Your task to perform on an android device: Open Yahoo.com Image 0: 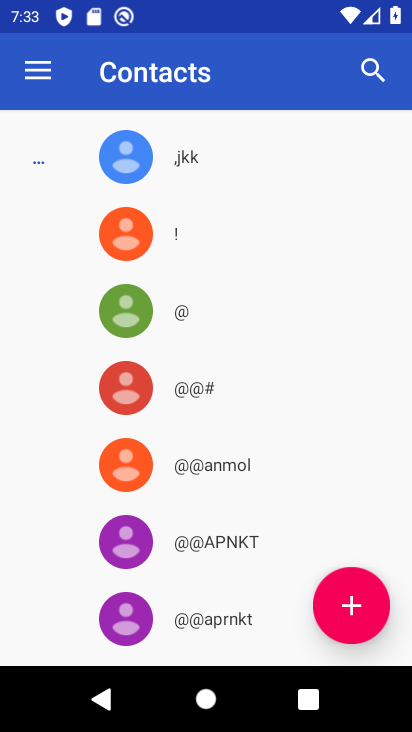
Step 0: press home button
Your task to perform on an android device: Open Yahoo.com Image 1: 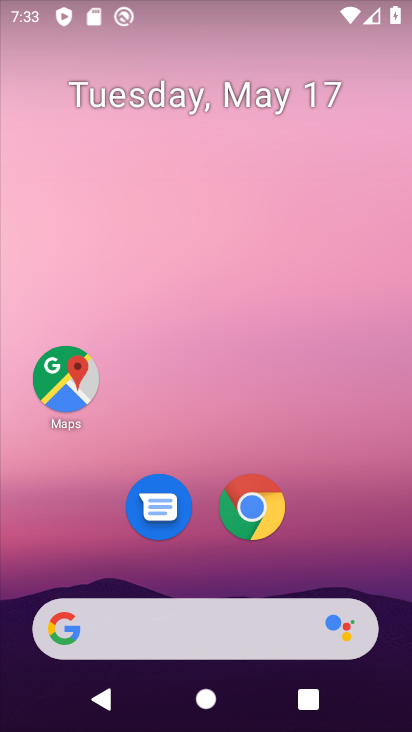
Step 1: click (231, 510)
Your task to perform on an android device: Open Yahoo.com Image 2: 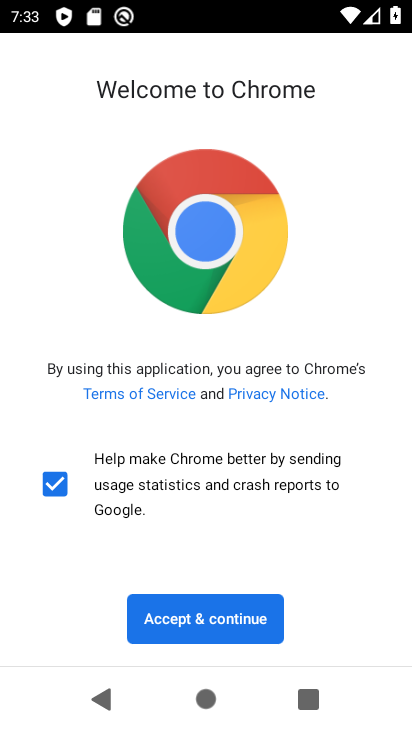
Step 2: click (196, 632)
Your task to perform on an android device: Open Yahoo.com Image 3: 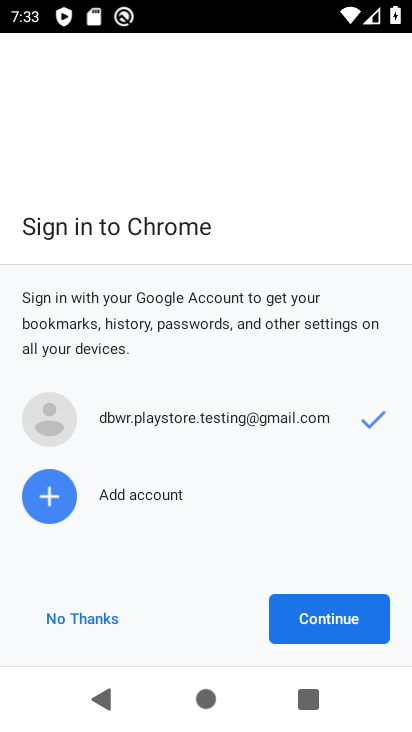
Step 3: click (87, 611)
Your task to perform on an android device: Open Yahoo.com Image 4: 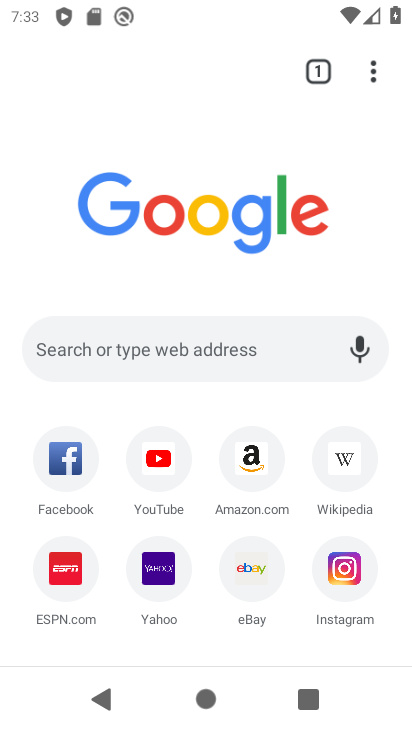
Step 4: click (156, 574)
Your task to perform on an android device: Open Yahoo.com Image 5: 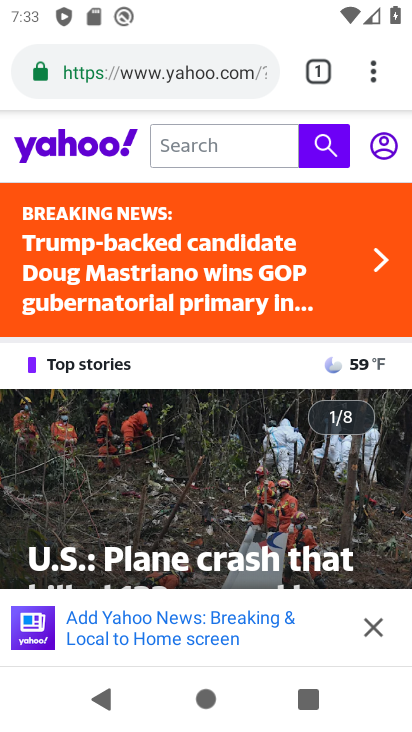
Step 5: task complete